Your task to perform on an android device: allow cookies in the chrome app Image 0: 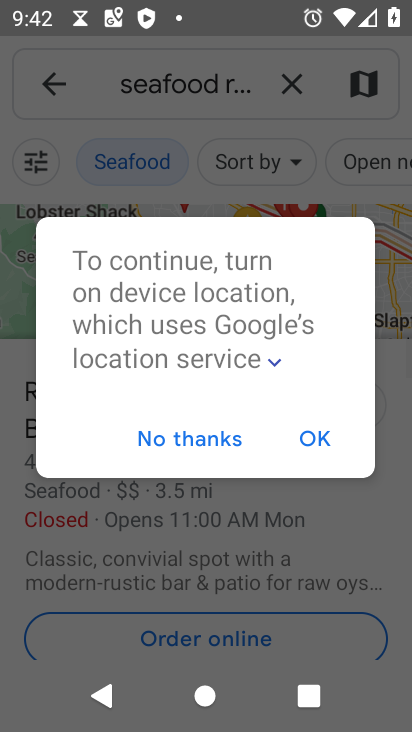
Step 0: press home button
Your task to perform on an android device: allow cookies in the chrome app Image 1: 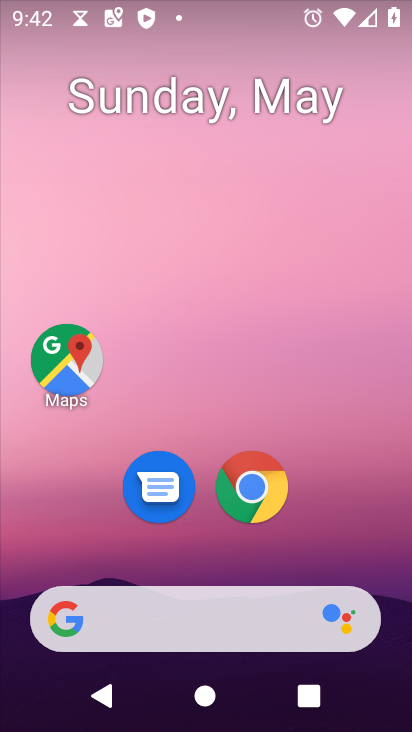
Step 1: click (260, 492)
Your task to perform on an android device: allow cookies in the chrome app Image 2: 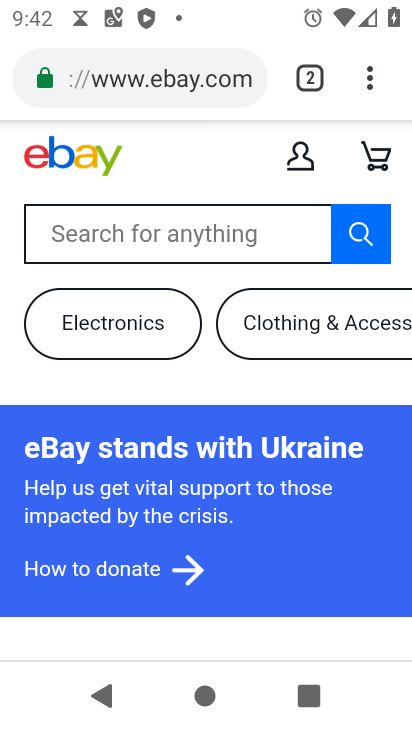
Step 2: drag from (364, 82) to (192, 549)
Your task to perform on an android device: allow cookies in the chrome app Image 3: 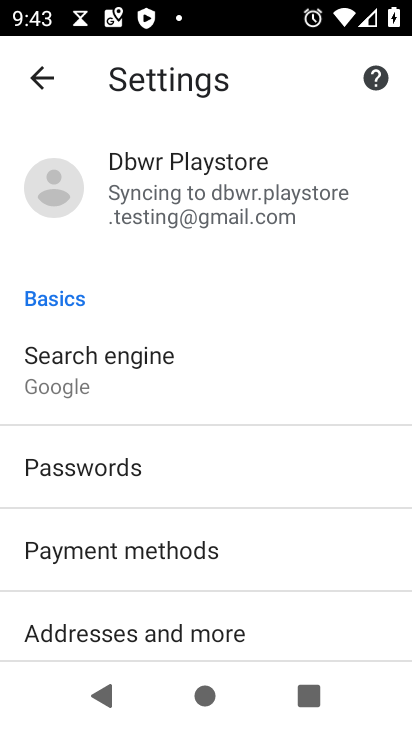
Step 3: drag from (220, 635) to (220, 246)
Your task to perform on an android device: allow cookies in the chrome app Image 4: 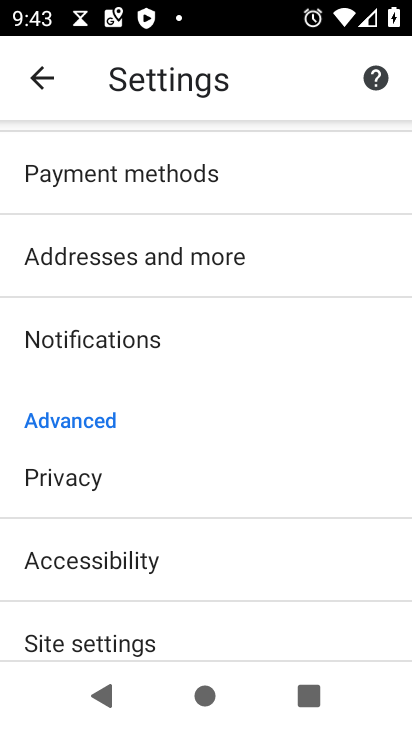
Step 4: drag from (190, 597) to (208, 329)
Your task to perform on an android device: allow cookies in the chrome app Image 5: 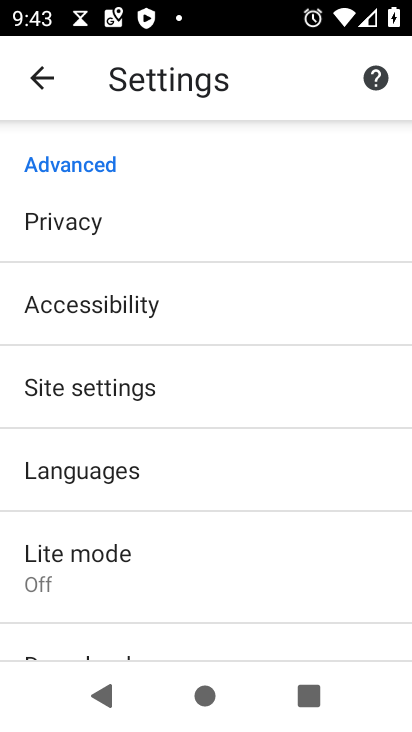
Step 5: click (176, 388)
Your task to perform on an android device: allow cookies in the chrome app Image 6: 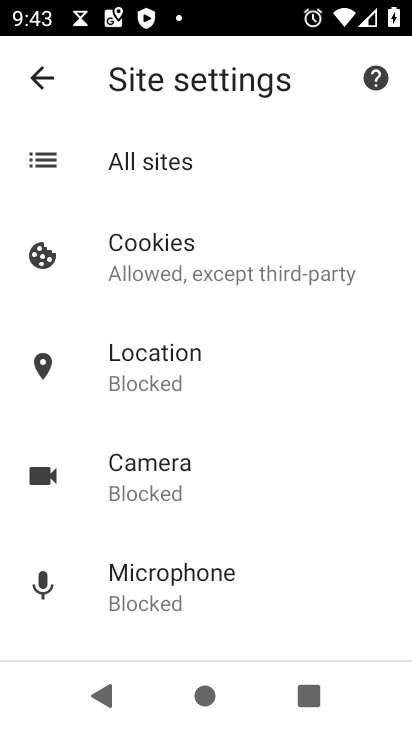
Step 6: click (220, 249)
Your task to perform on an android device: allow cookies in the chrome app Image 7: 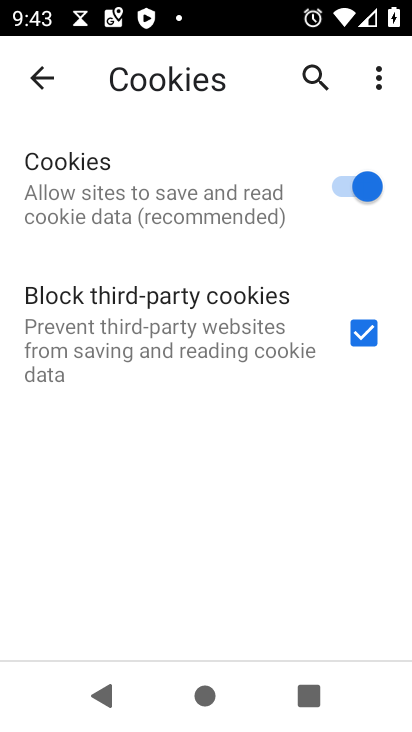
Step 7: task complete